Your task to perform on an android device: What's the weather going to be tomorrow? Image 0: 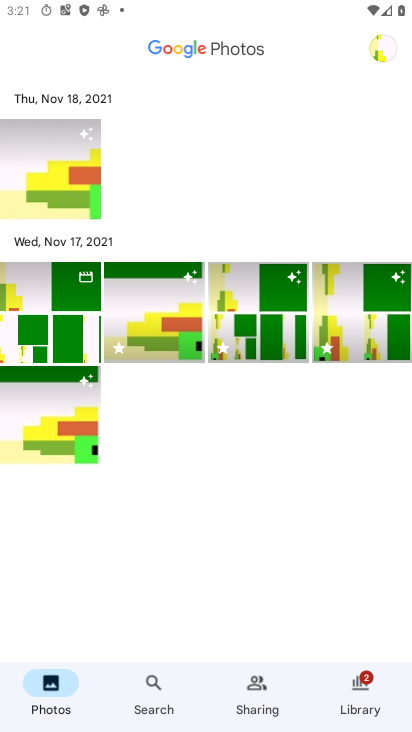
Step 0: press home button
Your task to perform on an android device: What's the weather going to be tomorrow? Image 1: 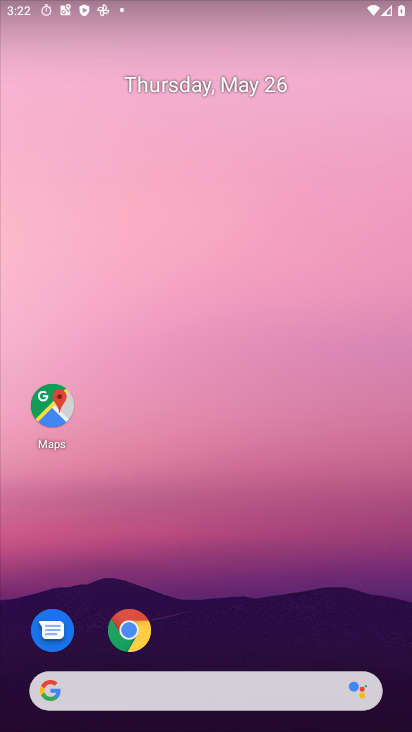
Step 1: click (198, 685)
Your task to perform on an android device: What's the weather going to be tomorrow? Image 2: 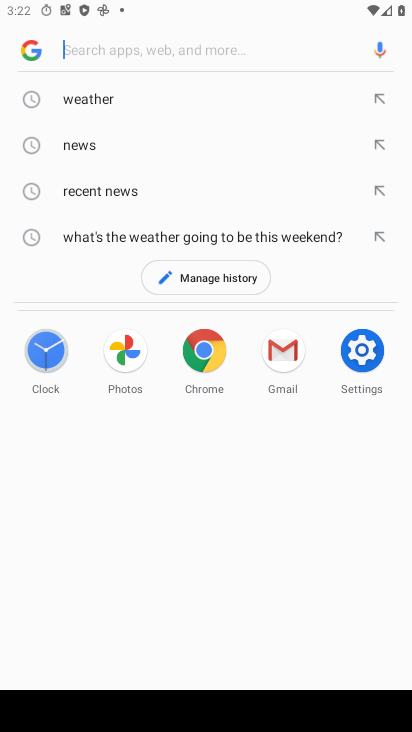
Step 2: click (106, 101)
Your task to perform on an android device: What's the weather going to be tomorrow? Image 3: 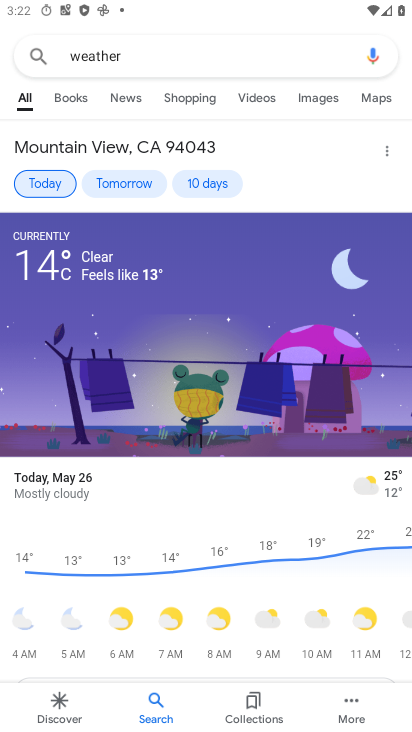
Step 3: click (129, 189)
Your task to perform on an android device: What's the weather going to be tomorrow? Image 4: 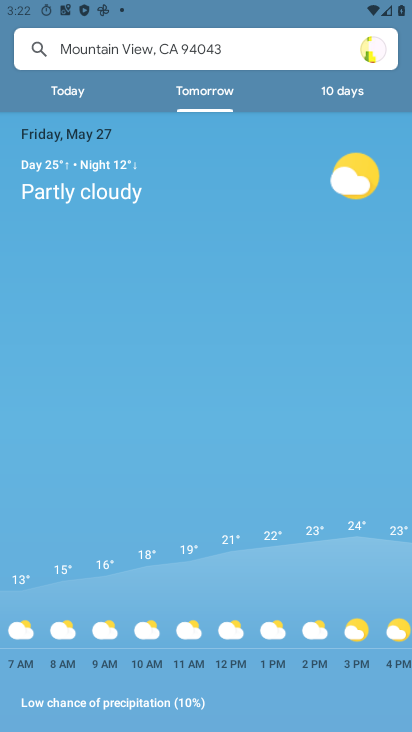
Step 4: task complete